Your task to perform on an android device: turn on notifications settings in the gmail app Image 0: 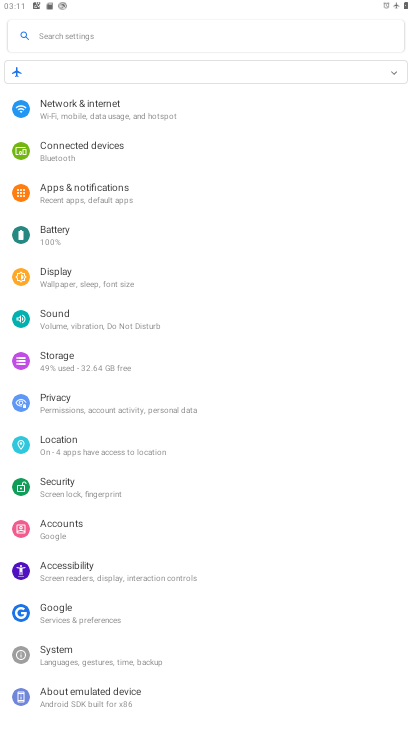
Step 0: click (92, 198)
Your task to perform on an android device: turn on notifications settings in the gmail app Image 1: 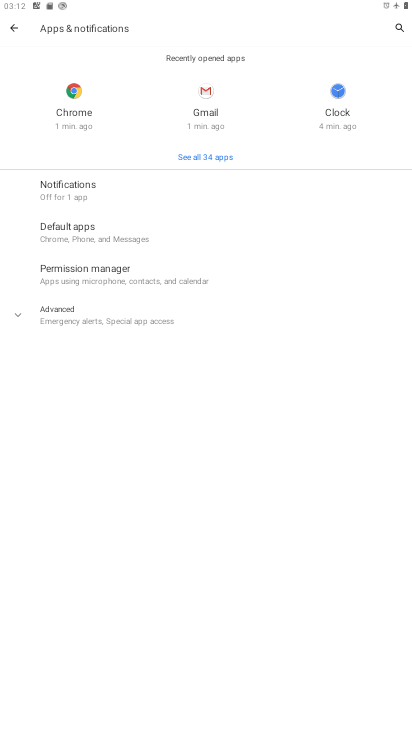
Step 1: press home button
Your task to perform on an android device: turn on notifications settings in the gmail app Image 2: 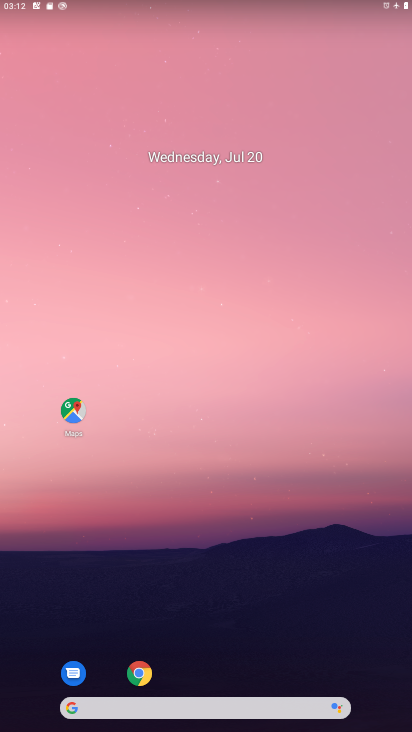
Step 2: drag from (186, 694) to (181, 2)
Your task to perform on an android device: turn on notifications settings in the gmail app Image 3: 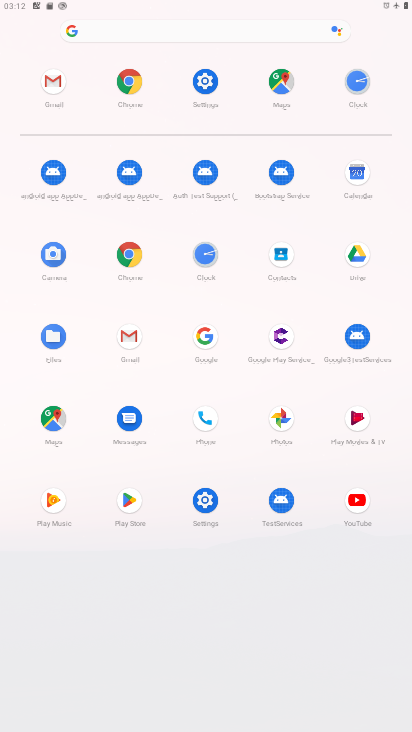
Step 3: click (124, 340)
Your task to perform on an android device: turn on notifications settings in the gmail app Image 4: 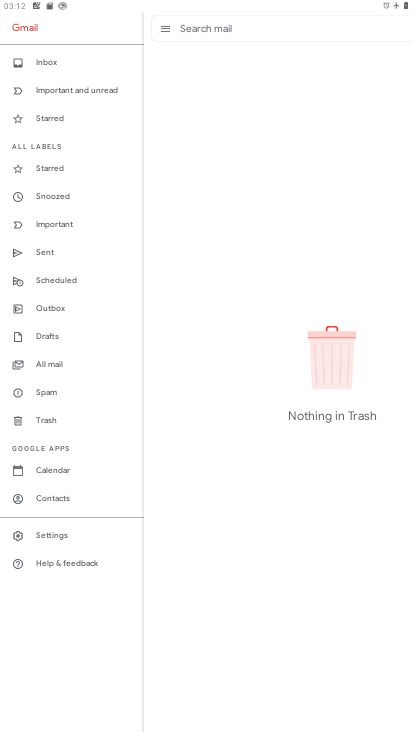
Step 4: click (52, 533)
Your task to perform on an android device: turn on notifications settings in the gmail app Image 5: 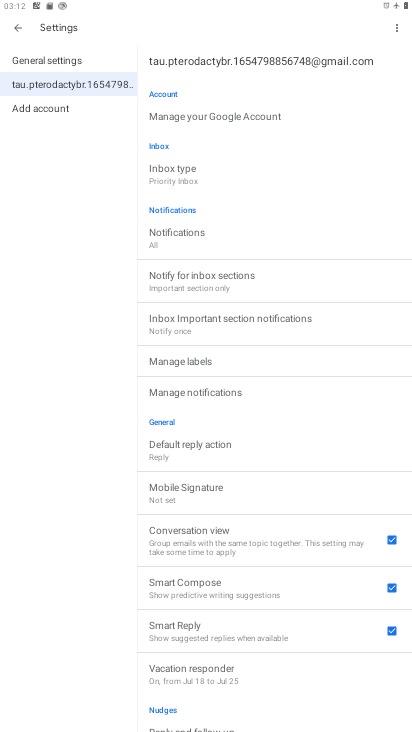
Step 5: click (78, 65)
Your task to perform on an android device: turn on notifications settings in the gmail app Image 6: 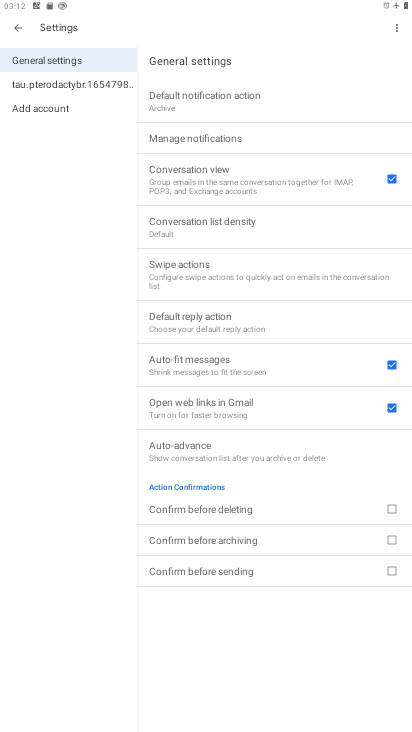
Step 6: click (221, 140)
Your task to perform on an android device: turn on notifications settings in the gmail app Image 7: 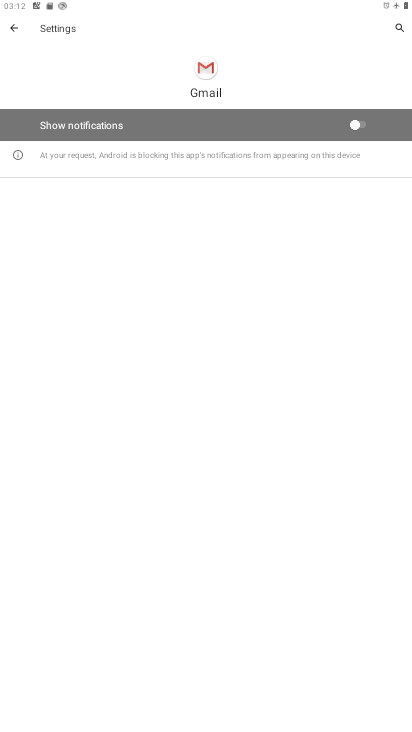
Step 7: click (329, 119)
Your task to perform on an android device: turn on notifications settings in the gmail app Image 8: 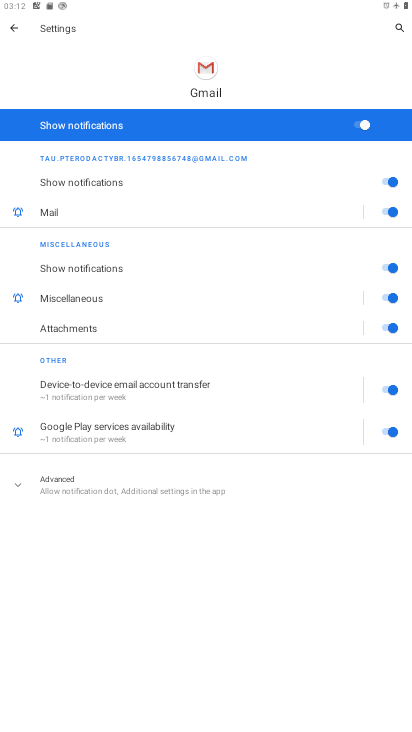
Step 8: task complete